Your task to perform on an android device: Open the calendar app, open the side menu, and click the "Day" option Image 0: 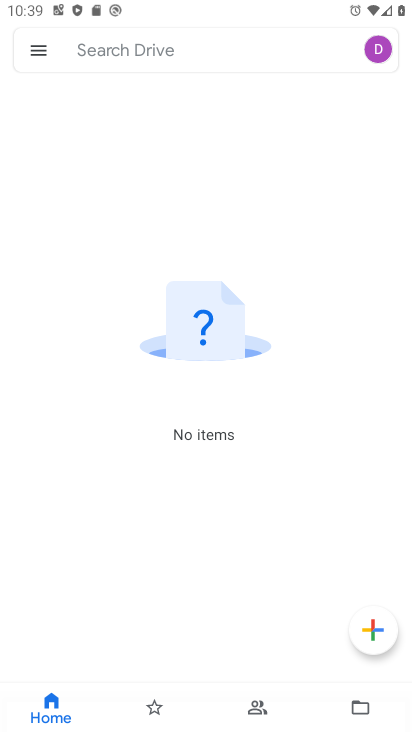
Step 0: press home button
Your task to perform on an android device: Open the calendar app, open the side menu, and click the "Day" option Image 1: 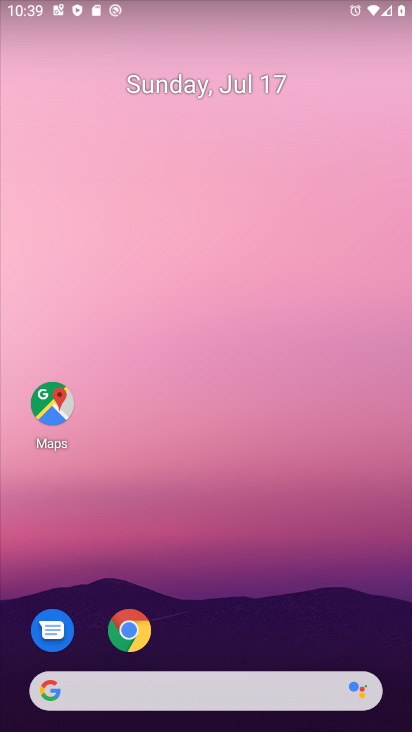
Step 1: drag from (319, 603) to (374, 79)
Your task to perform on an android device: Open the calendar app, open the side menu, and click the "Day" option Image 2: 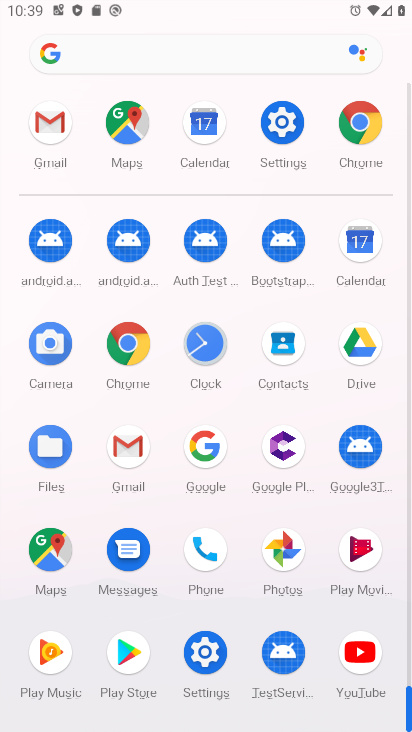
Step 2: click (356, 250)
Your task to perform on an android device: Open the calendar app, open the side menu, and click the "Day" option Image 3: 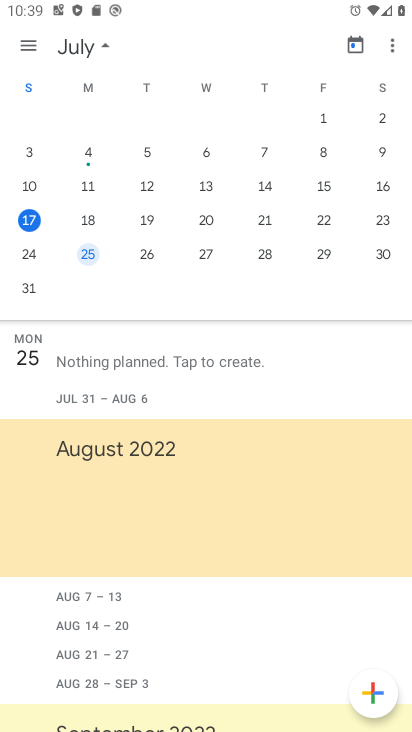
Step 3: click (28, 41)
Your task to perform on an android device: Open the calendar app, open the side menu, and click the "Day" option Image 4: 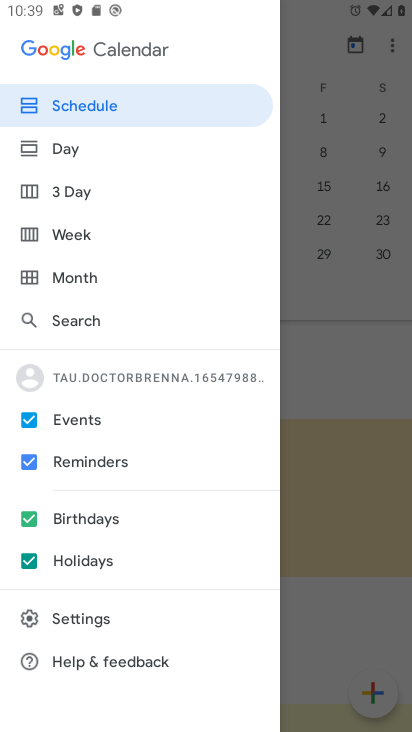
Step 4: click (114, 159)
Your task to perform on an android device: Open the calendar app, open the side menu, and click the "Day" option Image 5: 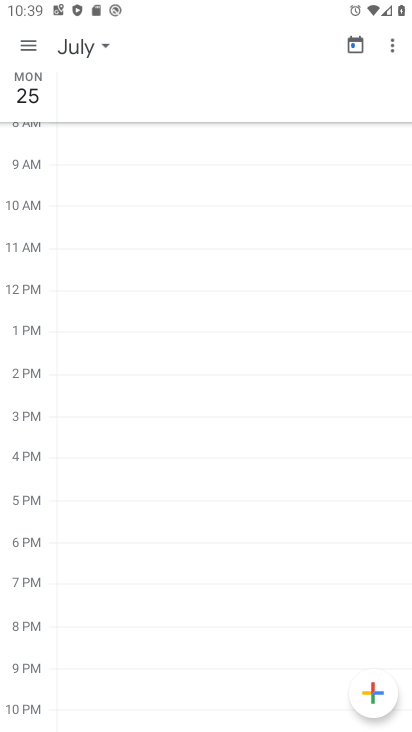
Step 5: task complete